Your task to perform on an android device: Do I have any events tomorrow? Image 0: 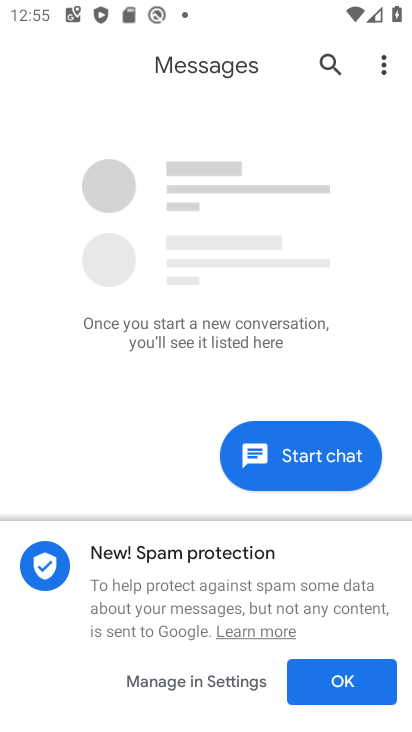
Step 0: press home button
Your task to perform on an android device: Do I have any events tomorrow? Image 1: 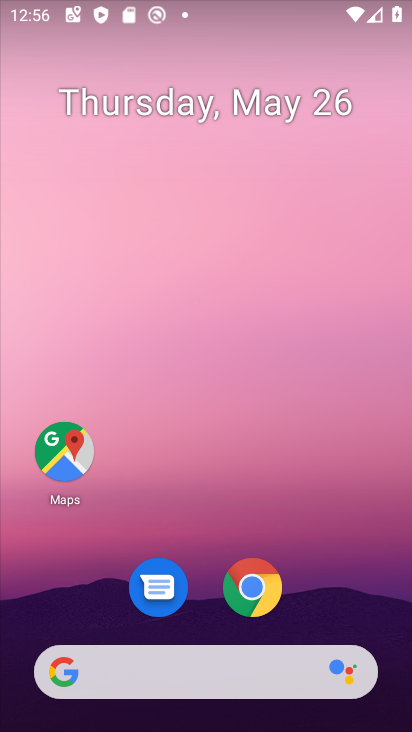
Step 1: drag from (353, 571) to (361, 144)
Your task to perform on an android device: Do I have any events tomorrow? Image 2: 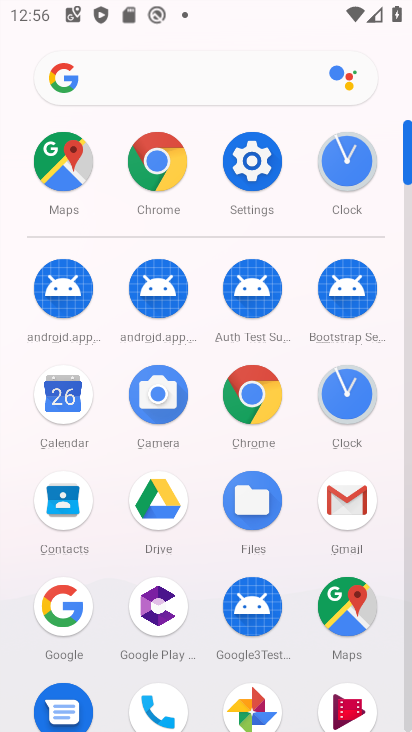
Step 2: click (68, 391)
Your task to perform on an android device: Do I have any events tomorrow? Image 3: 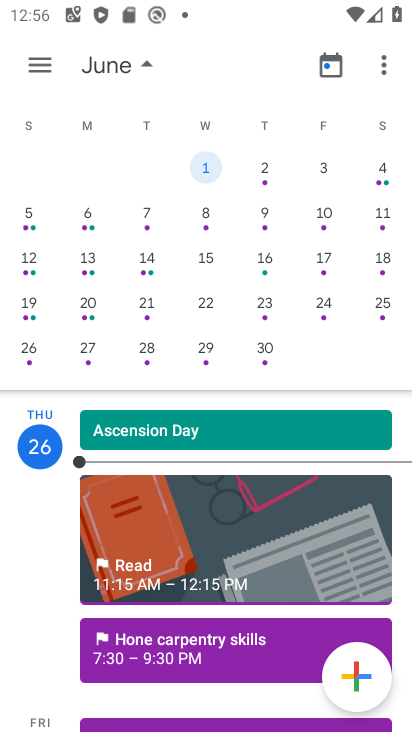
Step 3: drag from (35, 153) to (409, 193)
Your task to perform on an android device: Do I have any events tomorrow? Image 4: 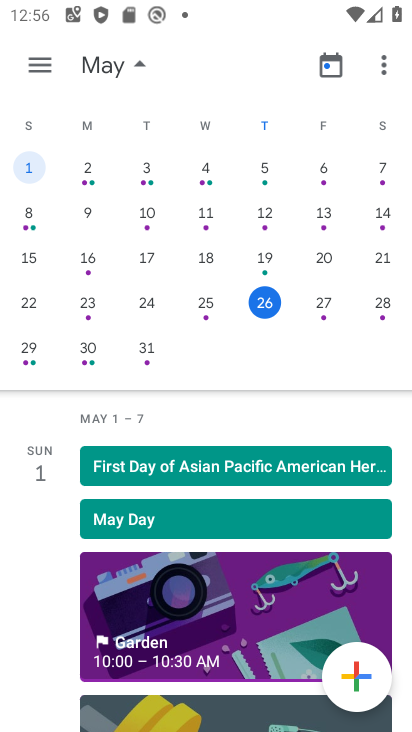
Step 4: click (327, 303)
Your task to perform on an android device: Do I have any events tomorrow? Image 5: 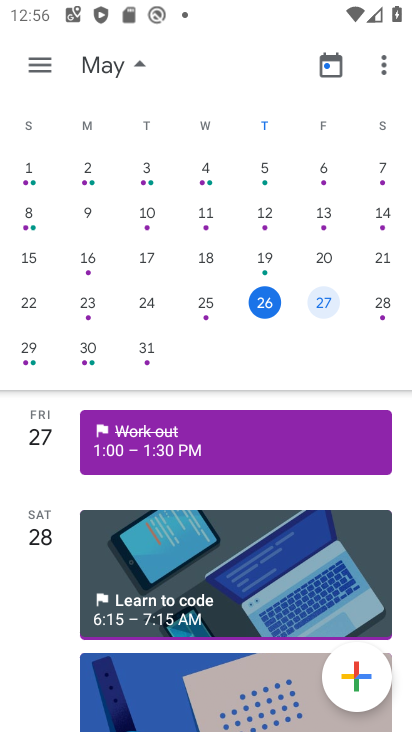
Step 5: click (219, 437)
Your task to perform on an android device: Do I have any events tomorrow? Image 6: 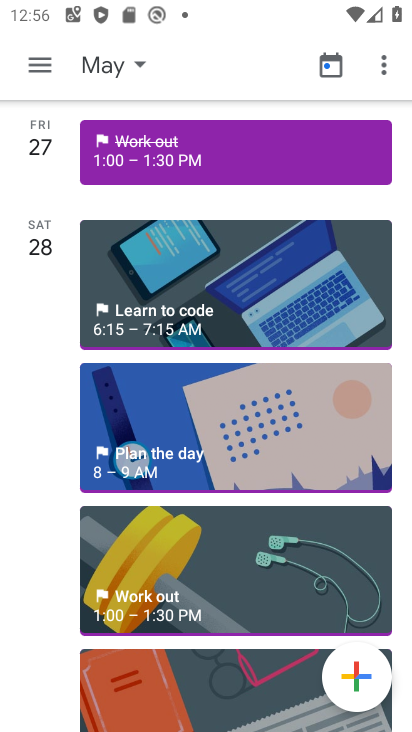
Step 6: click (227, 148)
Your task to perform on an android device: Do I have any events tomorrow? Image 7: 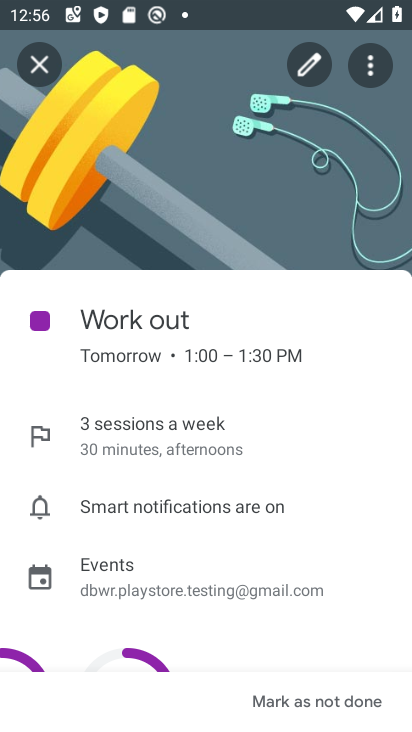
Step 7: task complete